Your task to perform on an android device: clear all cookies in the chrome app Image 0: 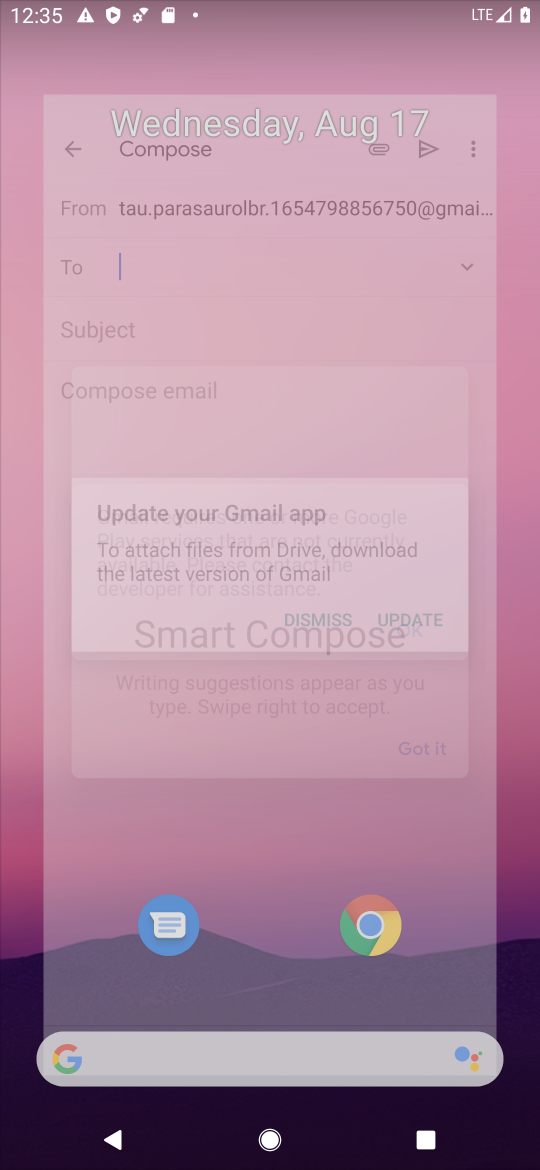
Step 0: click (372, 907)
Your task to perform on an android device: clear all cookies in the chrome app Image 1: 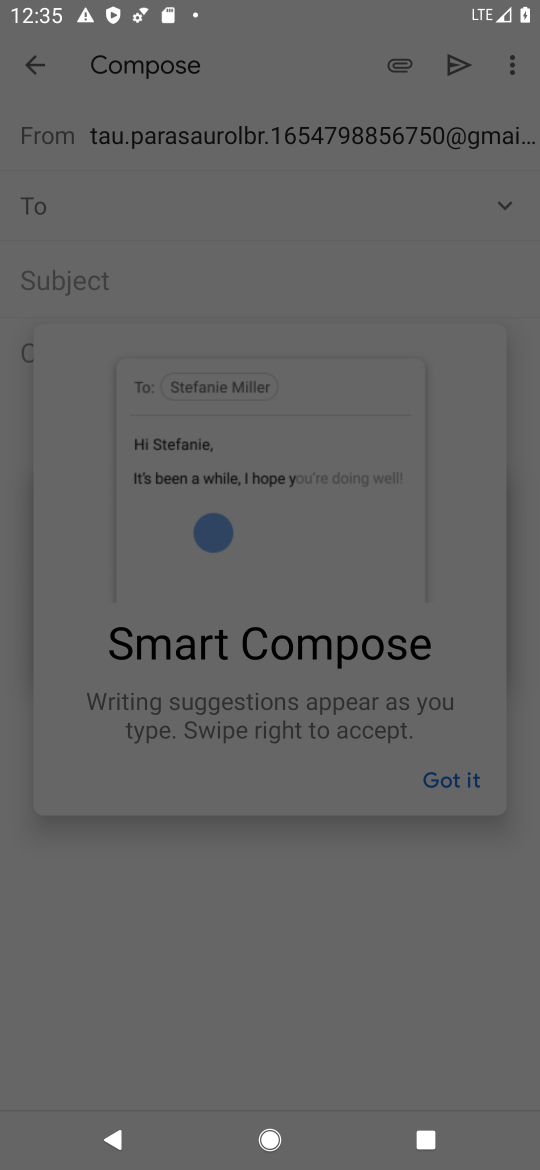
Step 1: press home button
Your task to perform on an android device: clear all cookies in the chrome app Image 2: 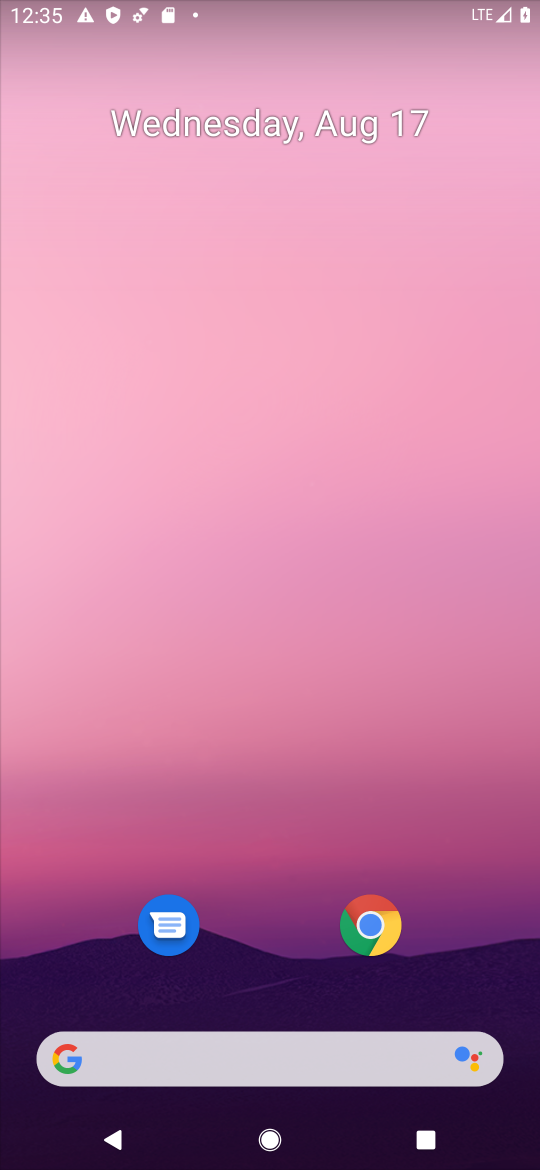
Step 2: click (379, 934)
Your task to perform on an android device: clear all cookies in the chrome app Image 3: 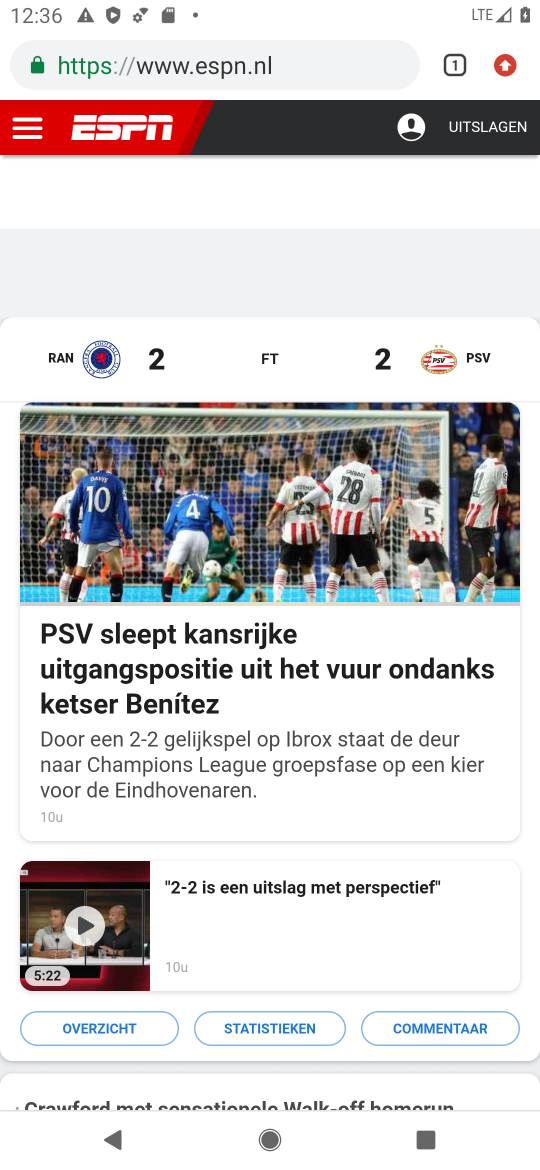
Step 3: drag from (507, 64) to (269, 877)
Your task to perform on an android device: clear all cookies in the chrome app Image 4: 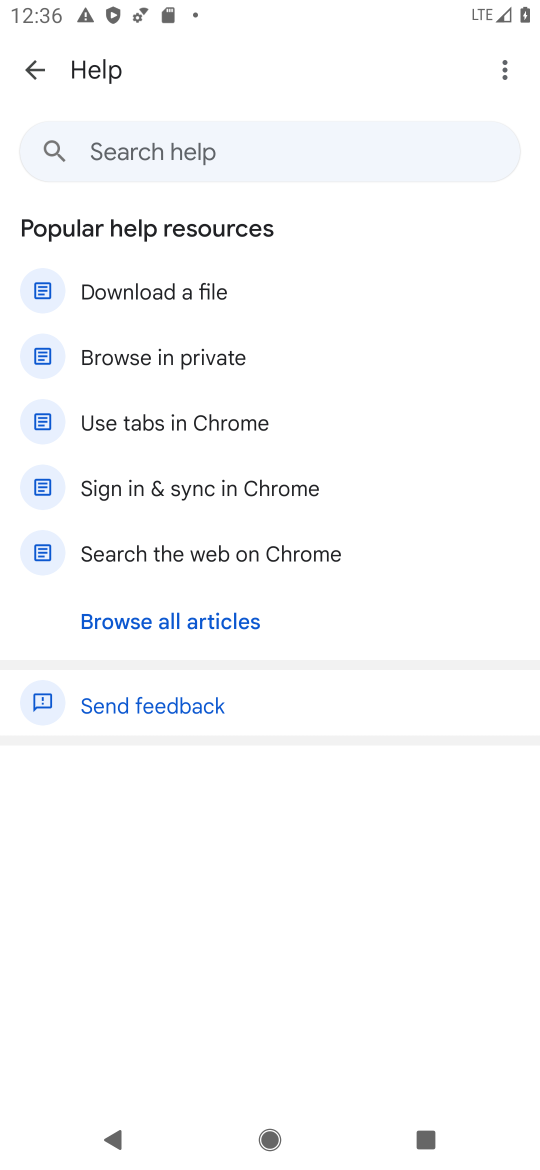
Step 4: click (32, 51)
Your task to perform on an android device: clear all cookies in the chrome app Image 5: 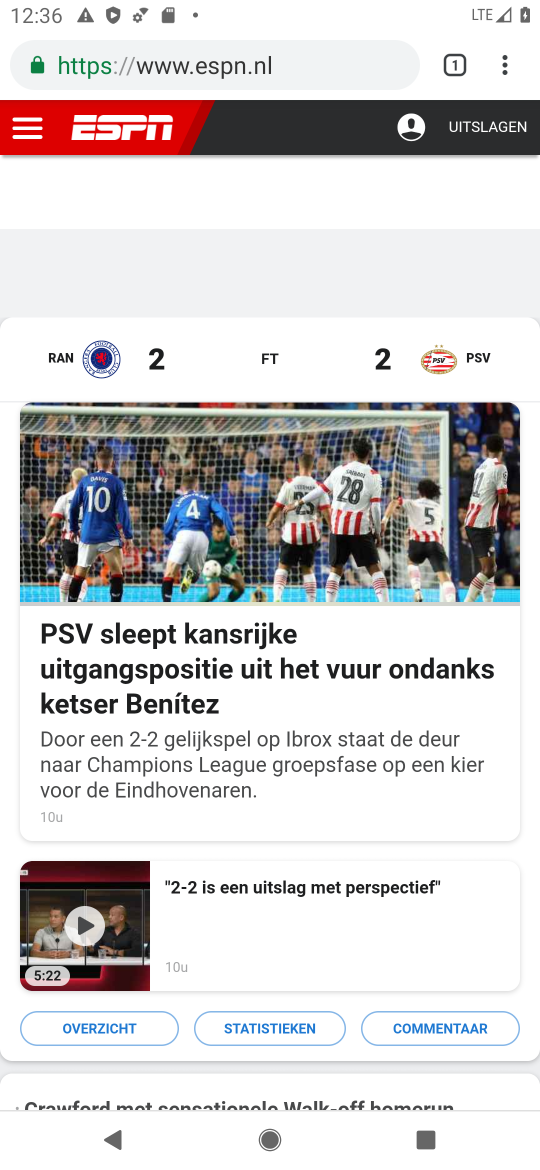
Step 5: drag from (503, 70) to (264, 441)
Your task to perform on an android device: clear all cookies in the chrome app Image 6: 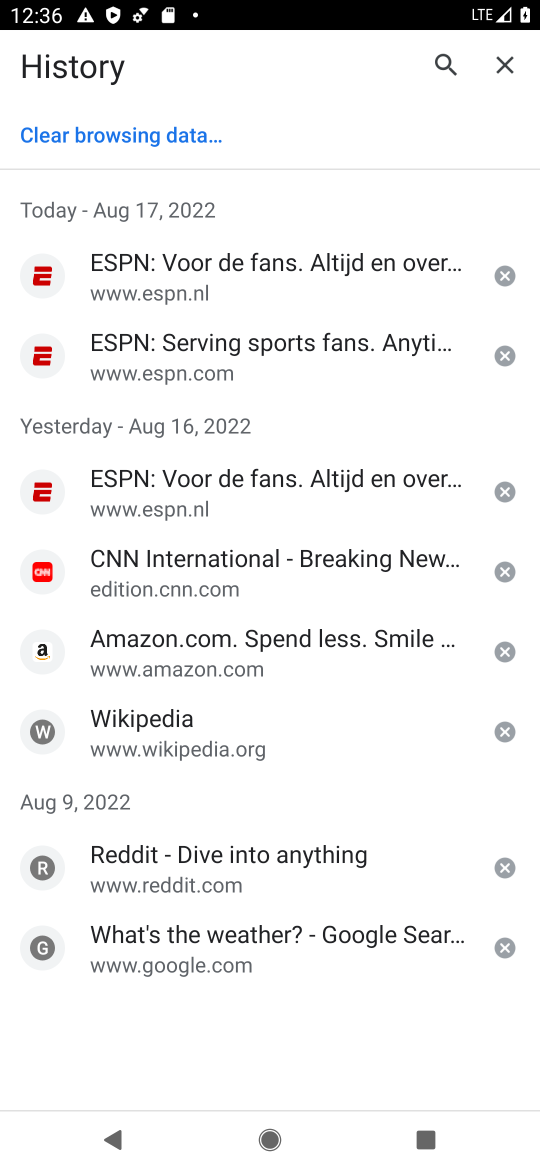
Step 6: click (88, 147)
Your task to perform on an android device: clear all cookies in the chrome app Image 7: 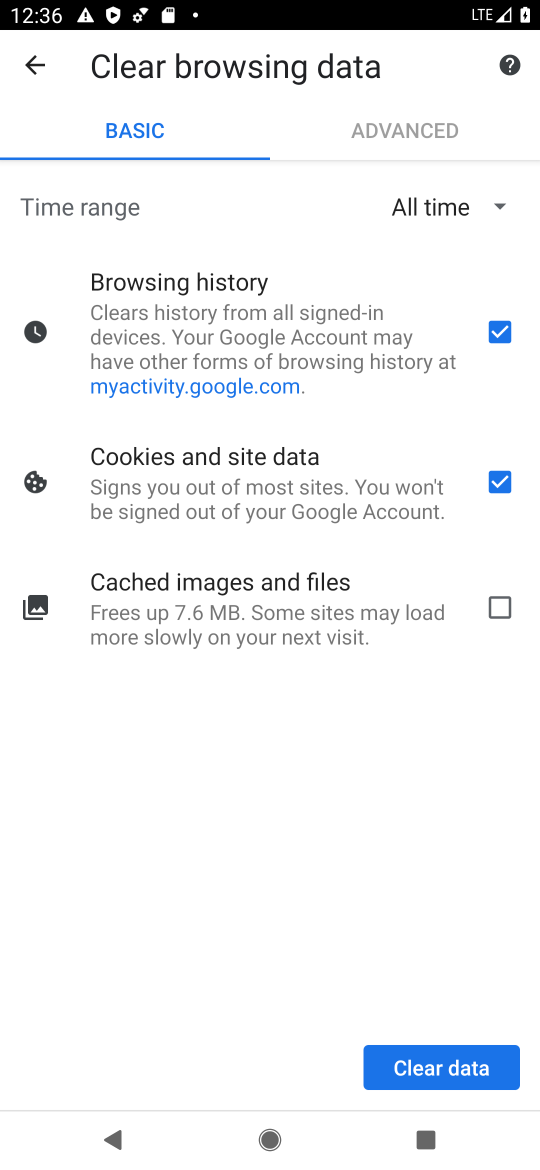
Step 7: click (396, 604)
Your task to perform on an android device: clear all cookies in the chrome app Image 8: 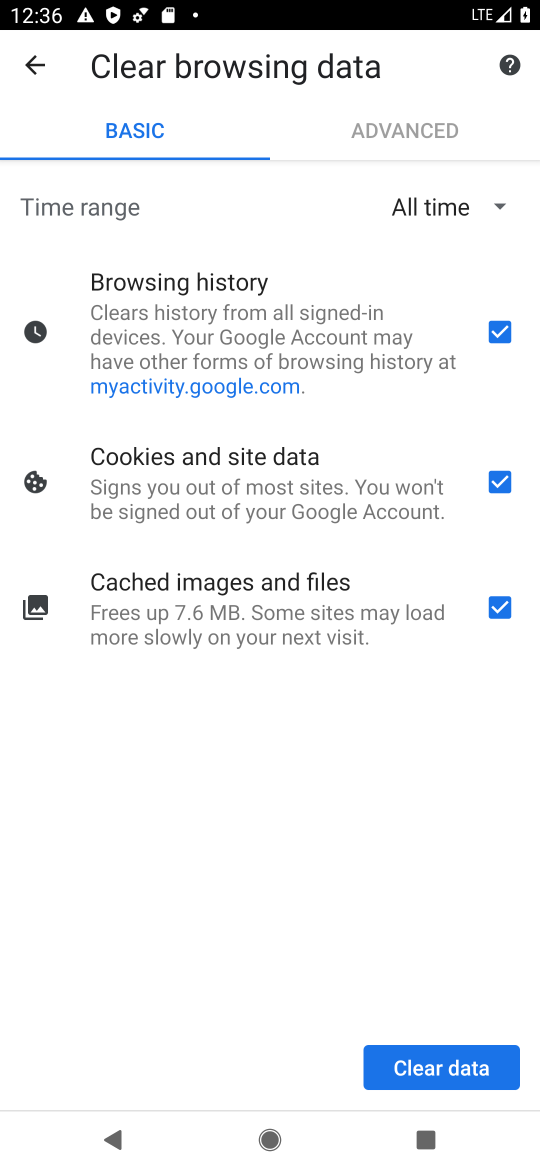
Step 8: click (430, 1064)
Your task to perform on an android device: clear all cookies in the chrome app Image 9: 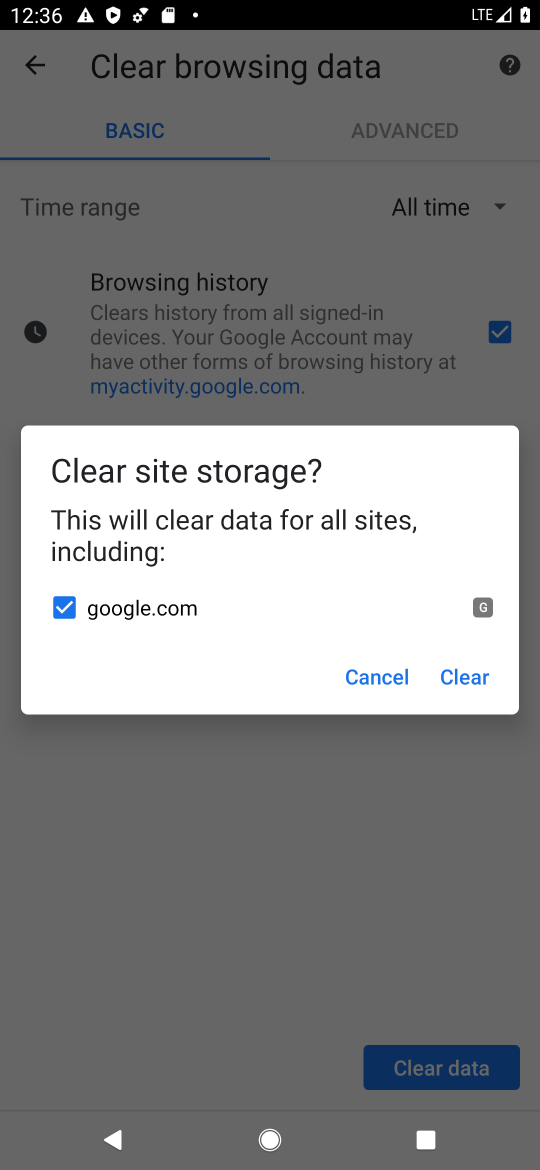
Step 9: click (475, 668)
Your task to perform on an android device: clear all cookies in the chrome app Image 10: 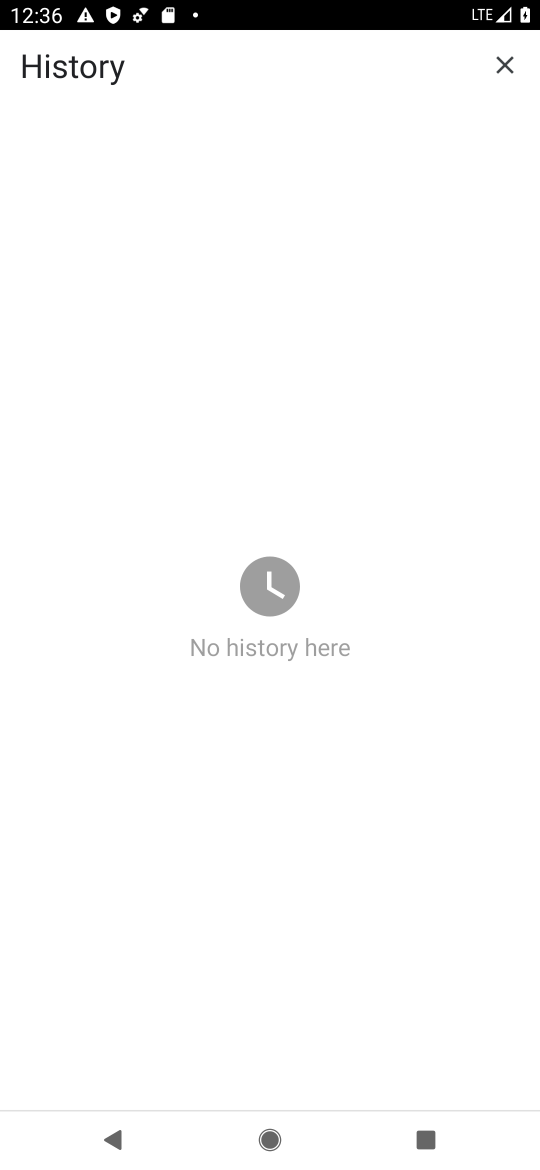
Step 10: task complete